Your task to perform on an android device: change keyboard looks Image 0: 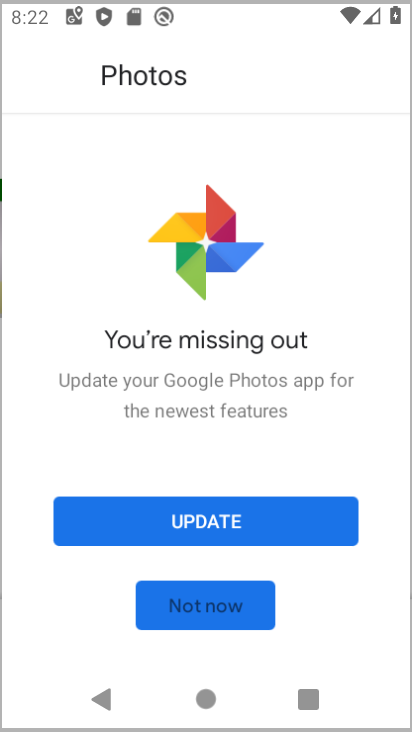
Step 0: press home button
Your task to perform on an android device: change keyboard looks Image 1: 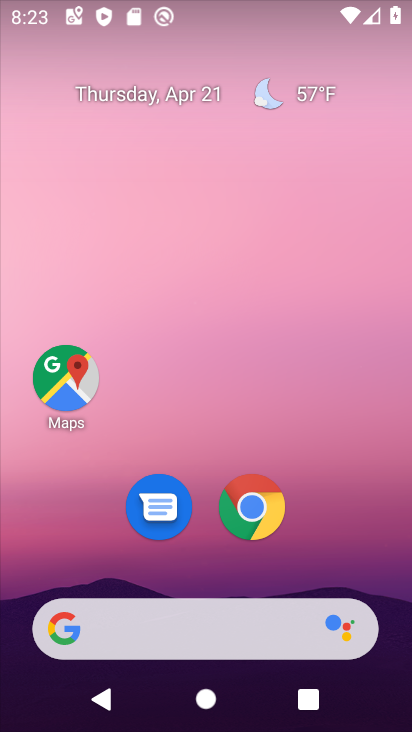
Step 1: drag from (370, 572) to (351, 10)
Your task to perform on an android device: change keyboard looks Image 2: 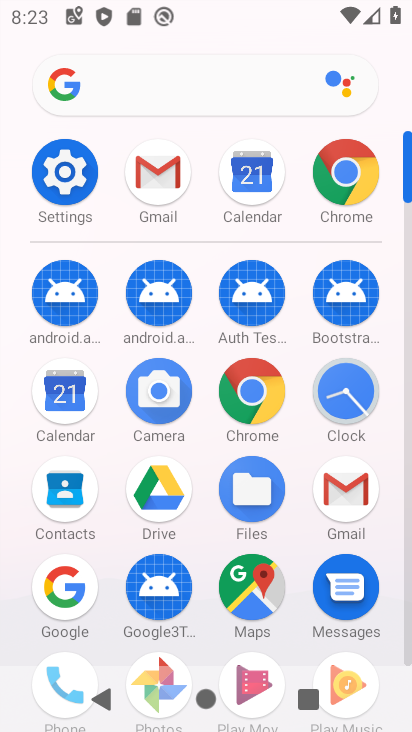
Step 2: click (93, 164)
Your task to perform on an android device: change keyboard looks Image 3: 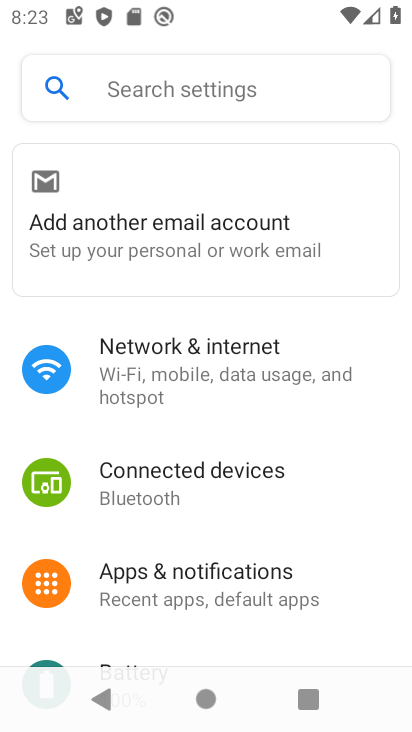
Step 3: drag from (371, 587) to (284, 71)
Your task to perform on an android device: change keyboard looks Image 4: 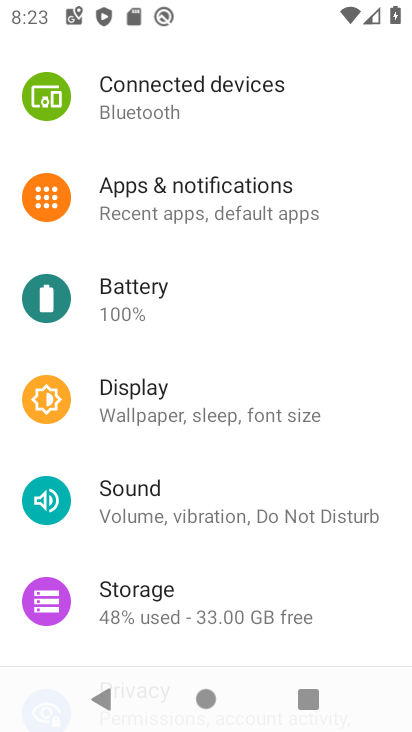
Step 4: drag from (229, 535) to (251, 137)
Your task to perform on an android device: change keyboard looks Image 5: 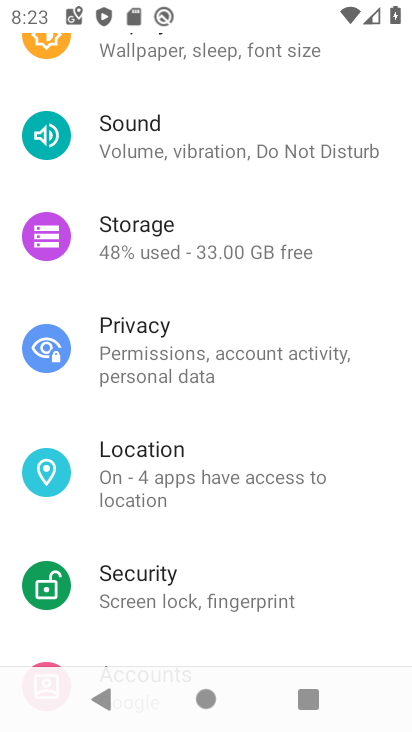
Step 5: drag from (234, 604) to (319, 257)
Your task to perform on an android device: change keyboard looks Image 6: 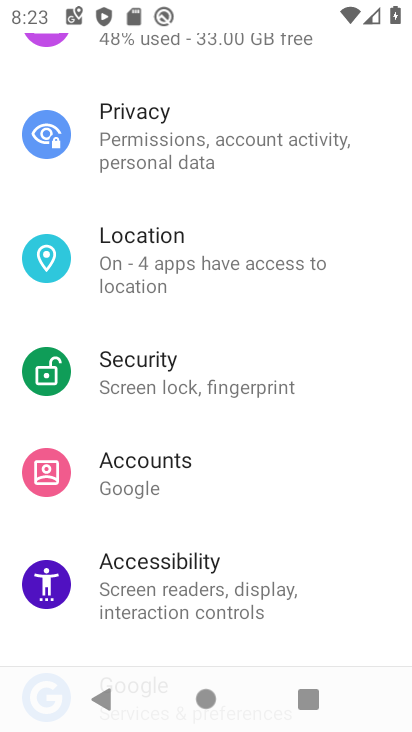
Step 6: drag from (231, 478) to (228, 29)
Your task to perform on an android device: change keyboard looks Image 7: 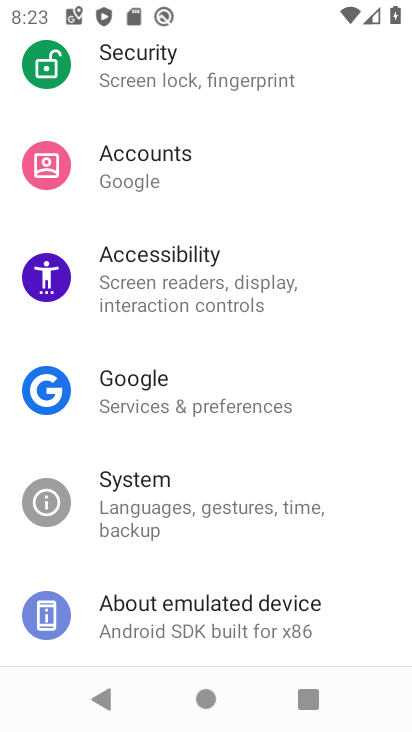
Step 7: click (154, 493)
Your task to perform on an android device: change keyboard looks Image 8: 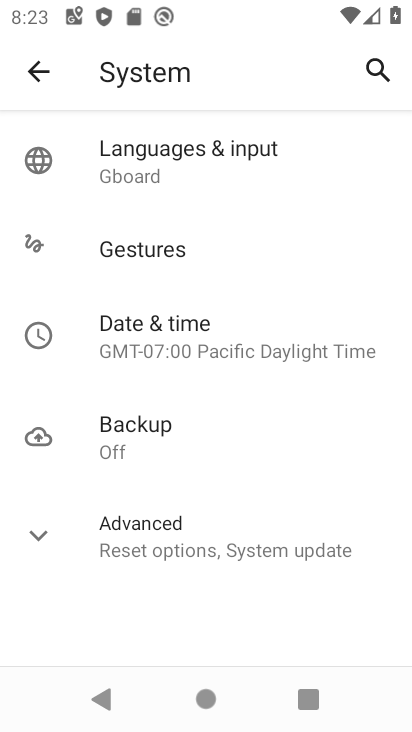
Step 8: click (214, 186)
Your task to perform on an android device: change keyboard looks Image 9: 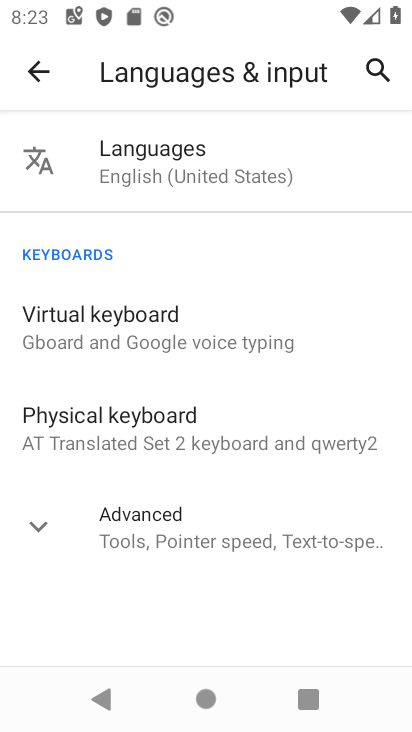
Step 9: click (166, 327)
Your task to perform on an android device: change keyboard looks Image 10: 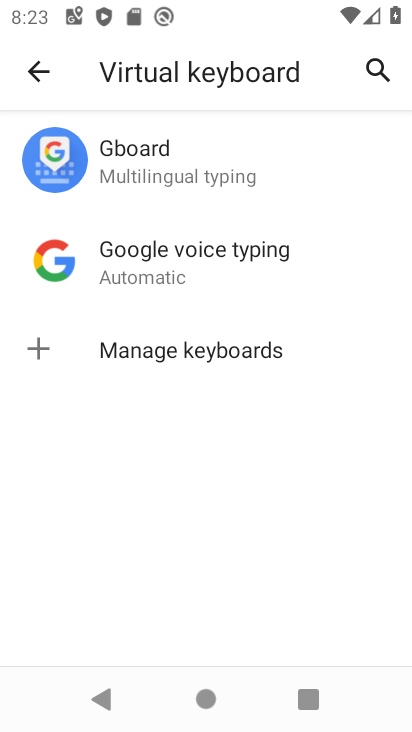
Step 10: click (173, 161)
Your task to perform on an android device: change keyboard looks Image 11: 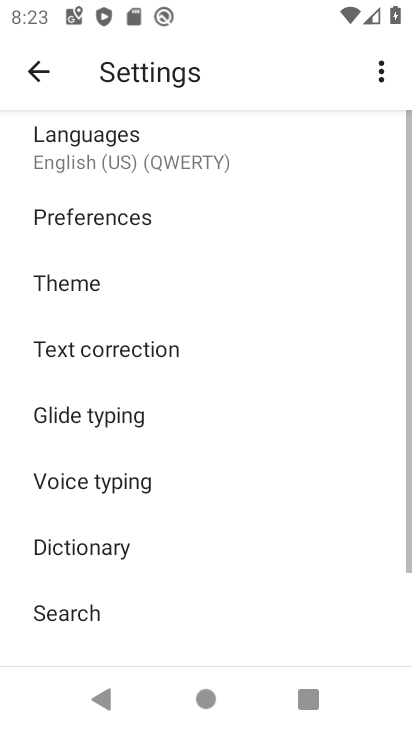
Step 11: click (134, 286)
Your task to perform on an android device: change keyboard looks Image 12: 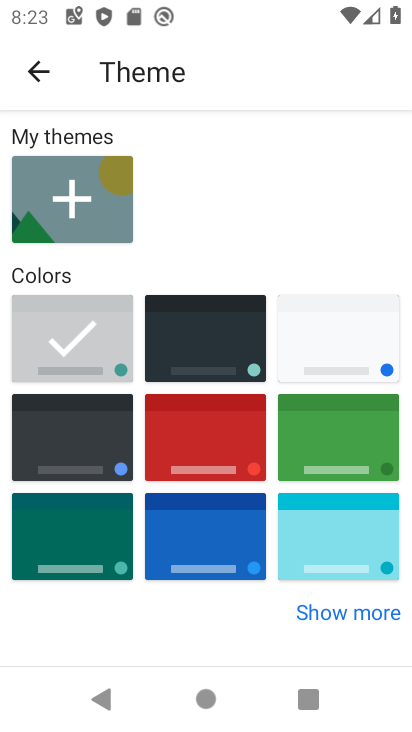
Step 12: click (210, 487)
Your task to perform on an android device: change keyboard looks Image 13: 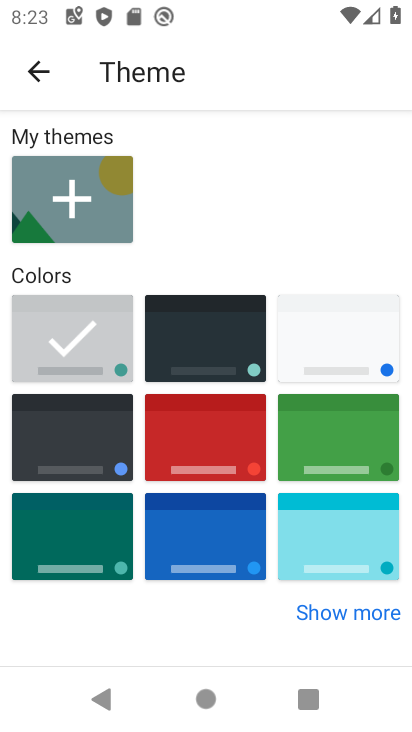
Step 13: click (207, 460)
Your task to perform on an android device: change keyboard looks Image 14: 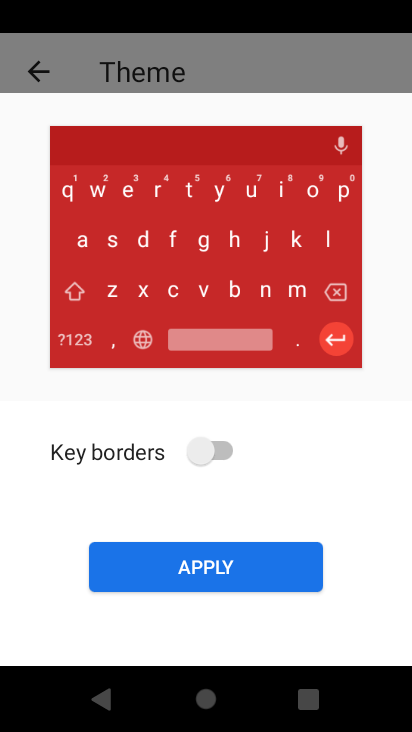
Step 14: click (198, 456)
Your task to perform on an android device: change keyboard looks Image 15: 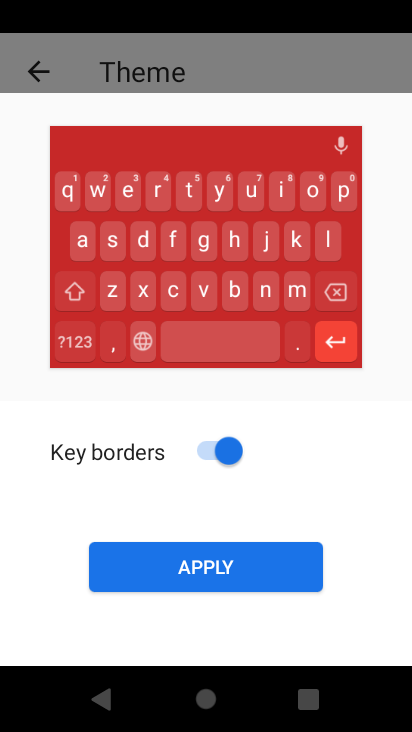
Step 15: click (219, 578)
Your task to perform on an android device: change keyboard looks Image 16: 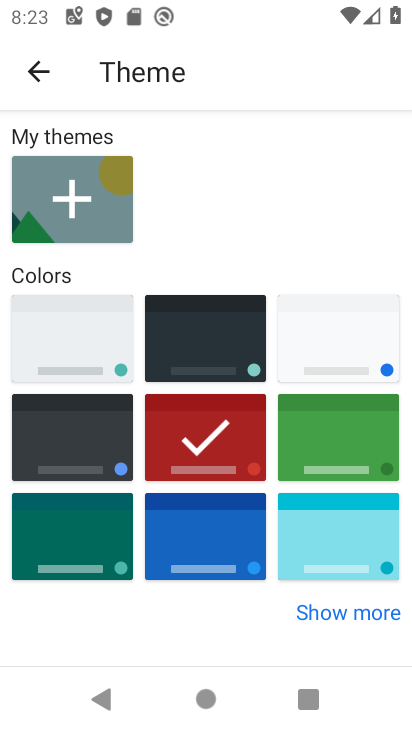
Step 16: task complete